Your task to perform on an android device: Set the phone to "Do not disturb". Image 0: 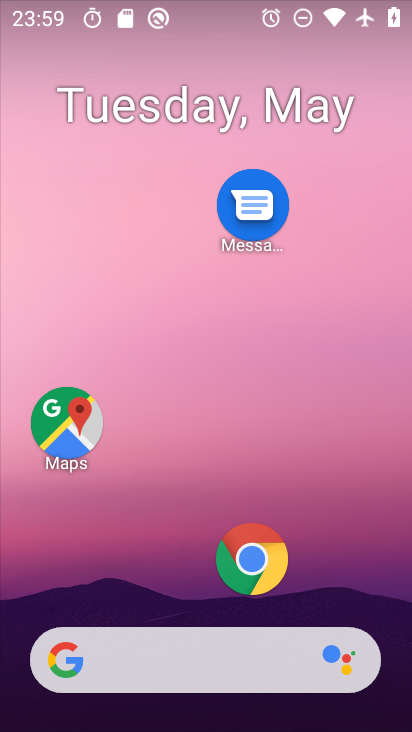
Step 0: drag from (179, 564) to (196, 191)
Your task to perform on an android device: Set the phone to "Do not disturb". Image 1: 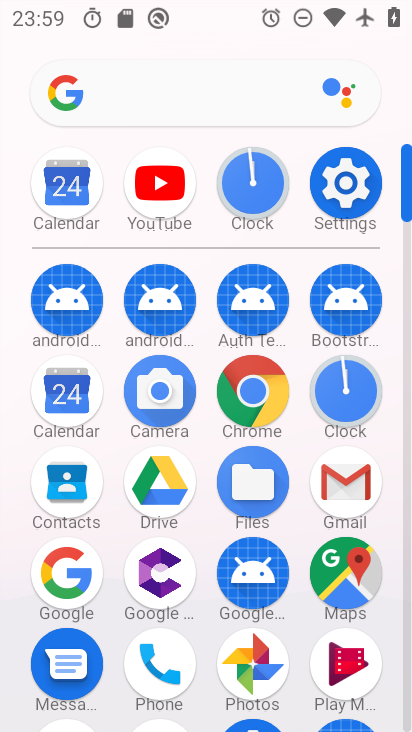
Step 1: click (326, 190)
Your task to perform on an android device: Set the phone to "Do not disturb". Image 2: 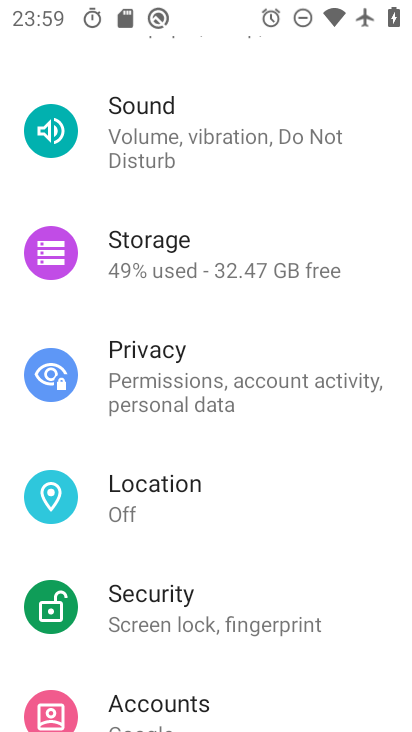
Step 2: click (192, 150)
Your task to perform on an android device: Set the phone to "Do not disturb". Image 3: 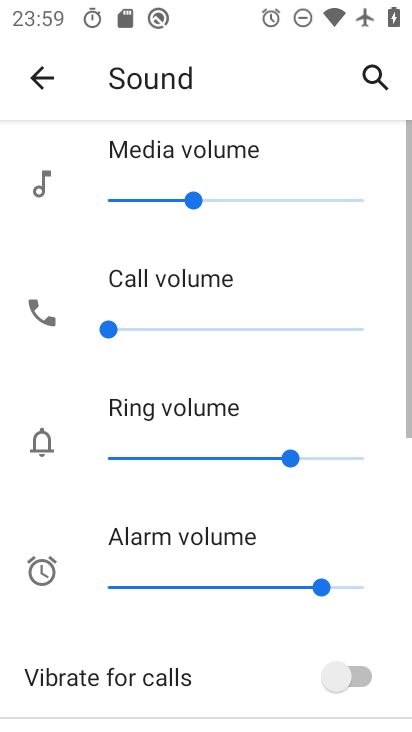
Step 3: drag from (199, 654) to (227, 183)
Your task to perform on an android device: Set the phone to "Do not disturb". Image 4: 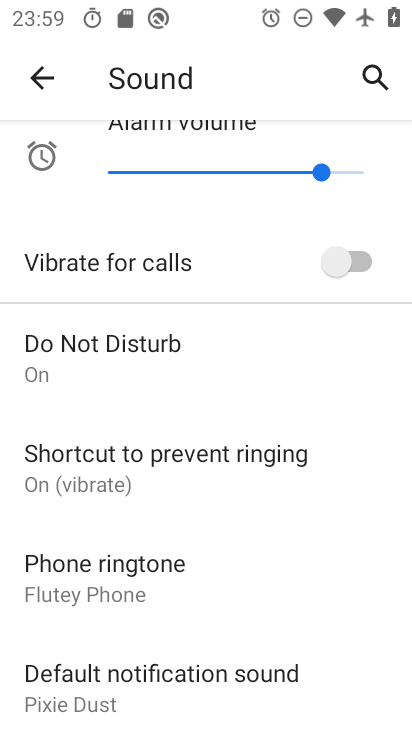
Step 4: click (120, 358)
Your task to perform on an android device: Set the phone to "Do not disturb". Image 5: 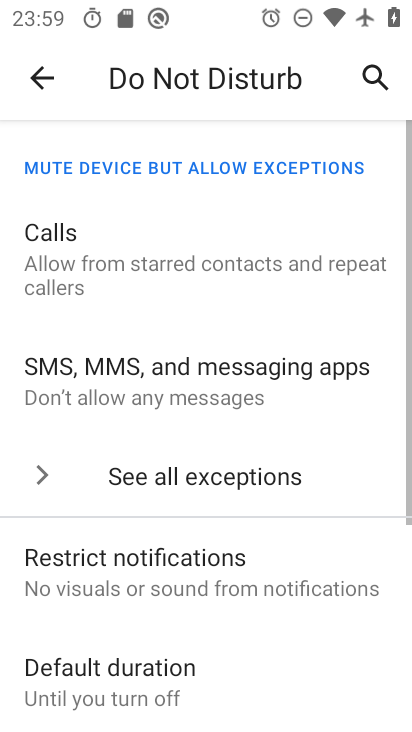
Step 5: task complete